Your task to perform on an android device: turn on location history Image 0: 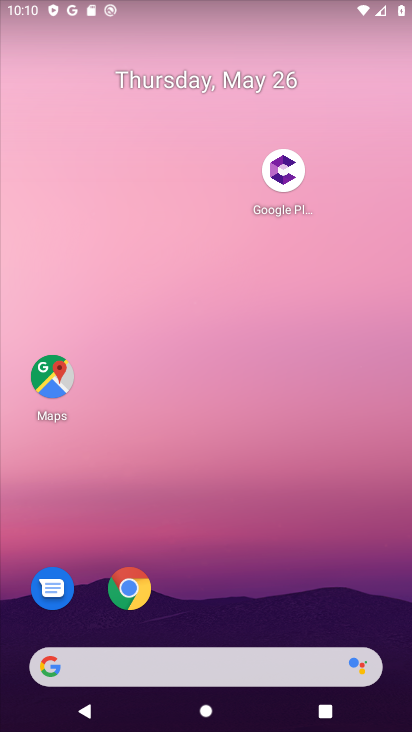
Step 0: drag from (243, 641) to (204, 71)
Your task to perform on an android device: turn on location history Image 1: 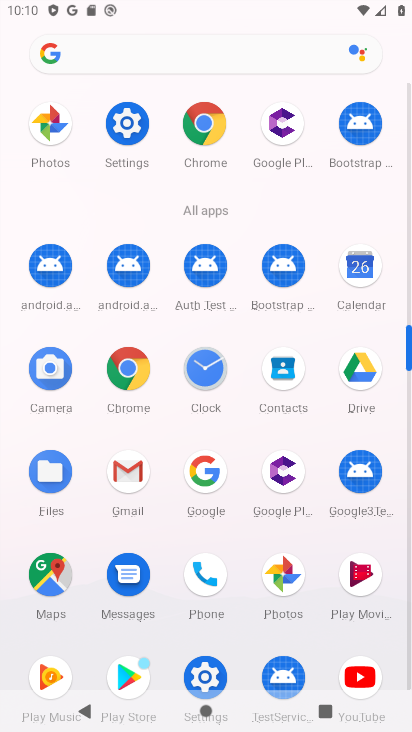
Step 1: click (190, 672)
Your task to perform on an android device: turn on location history Image 2: 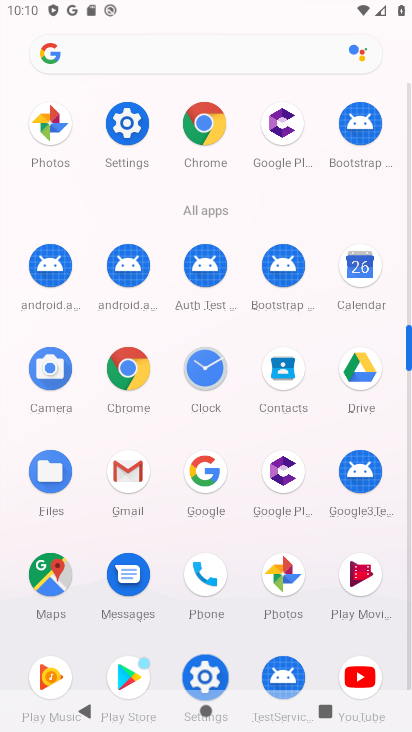
Step 2: click (194, 672)
Your task to perform on an android device: turn on location history Image 3: 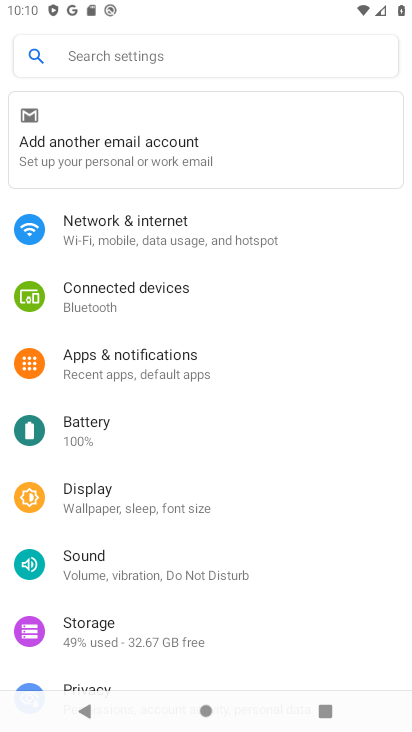
Step 3: drag from (128, 516) to (178, 23)
Your task to perform on an android device: turn on location history Image 4: 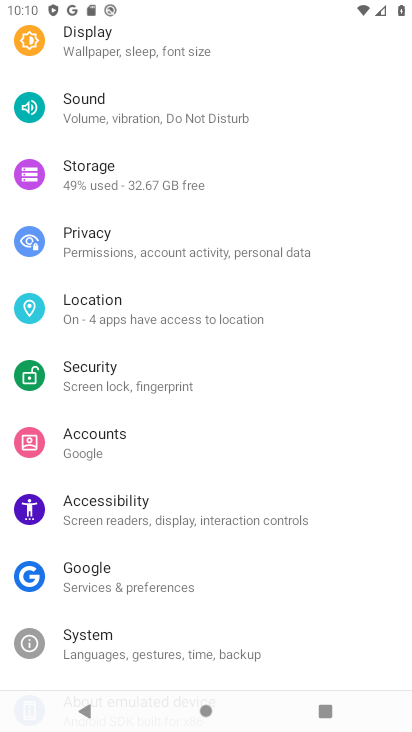
Step 4: drag from (153, 537) to (162, 164)
Your task to perform on an android device: turn on location history Image 5: 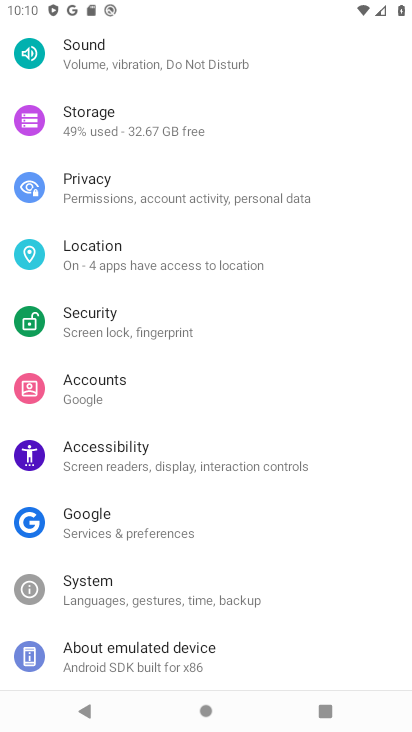
Step 5: click (94, 263)
Your task to perform on an android device: turn on location history Image 6: 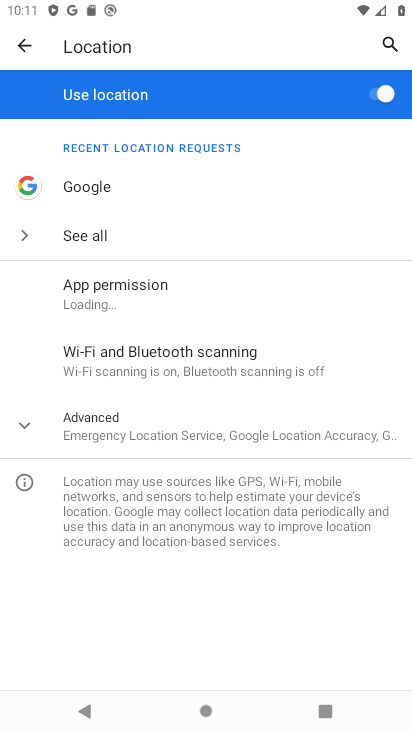
Step 6: click (119, 251)
Your task to perform on an android device: turn on location history Image 7: 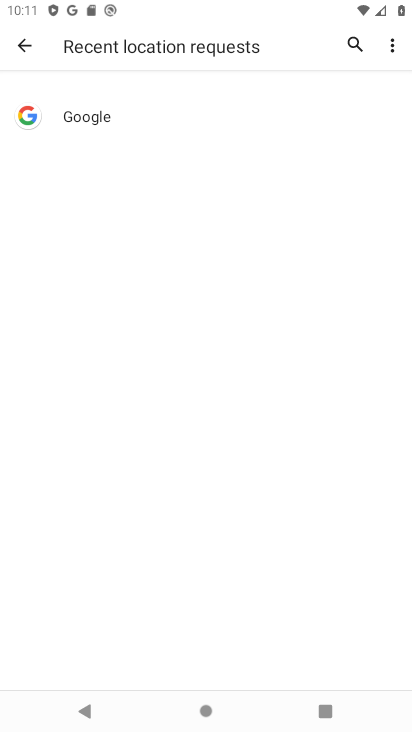
Step 7: click (23, 43)
Your task to perform on an android device: turn on location history Image 8: 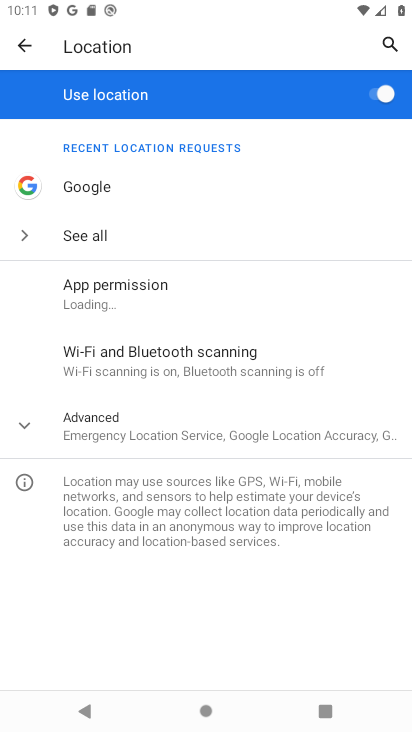
Step 8: click (128, 422)
Your task to perform on an android device: turn on location history Image 9: 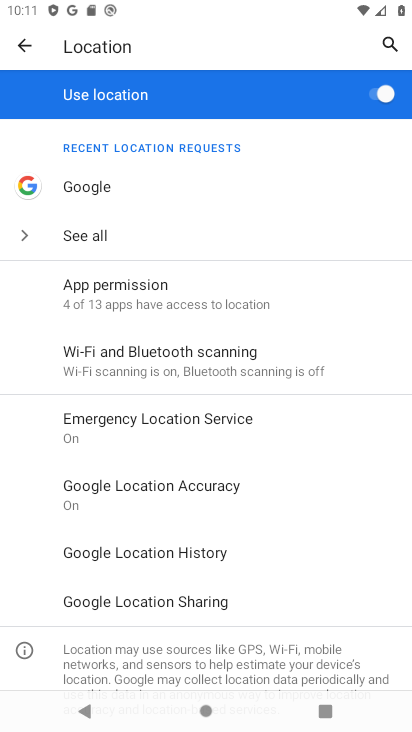
Step 9: click (177, 537)
Your task to perform on an android device: turn on location history Image 10: 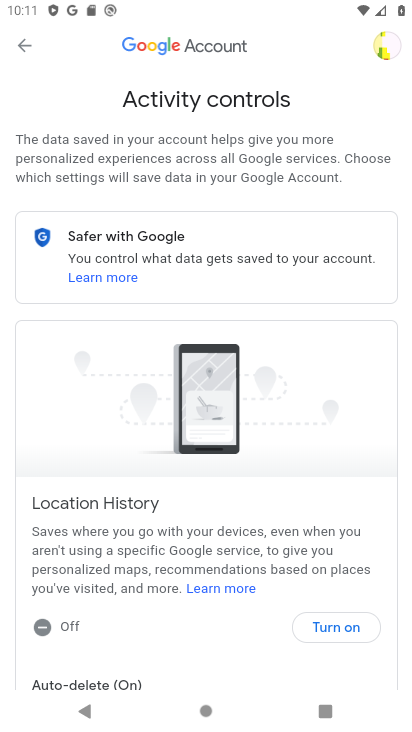
Step 10: click (317, 621)
Your task to perform on an android device: turn on location history Image 11: 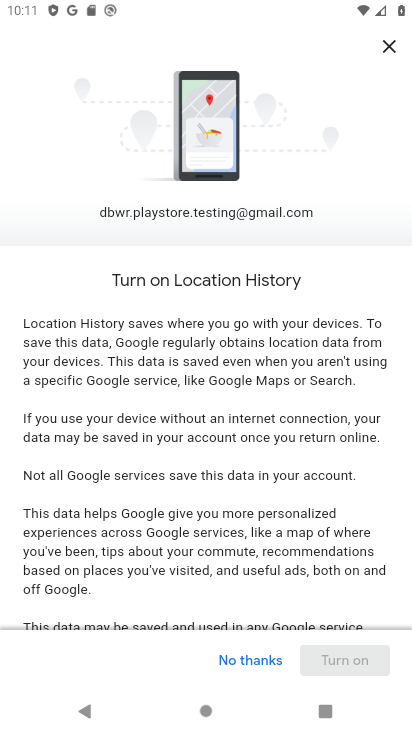
Step 11: task complete